Your task to perform on an android device: open the mobile data screen to see how much data has been used Image 0: 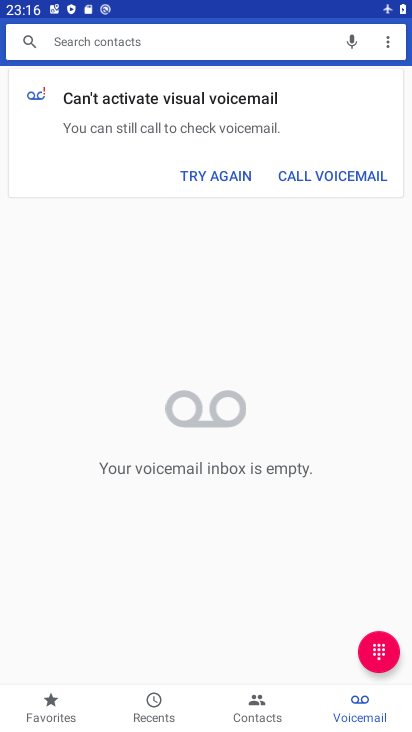
Step 0: press home button
Your task to perform on an android device: open the mobile data screen to see how much data has been used Image 1: 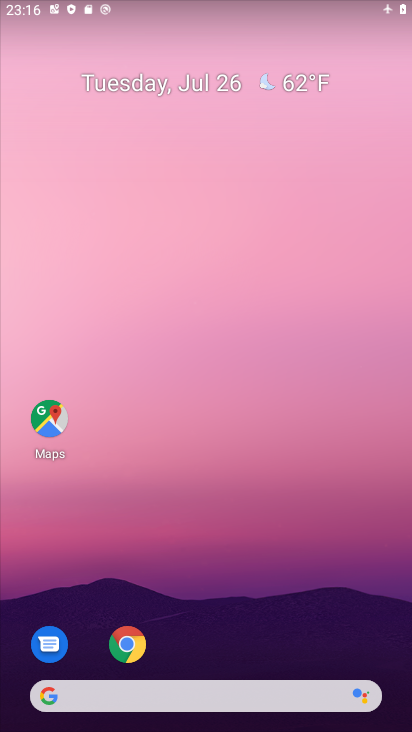
Step 1: drag from (217, 664) to (225, 14)
Your task to perform on an android device: open the mobile data screen to see how much data has been used Image 2: 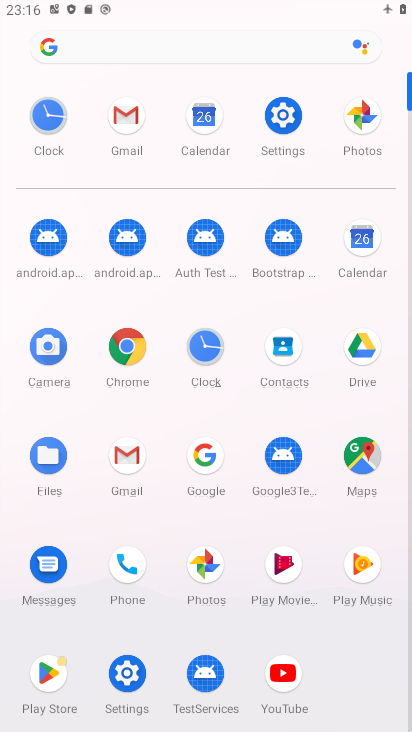
Step 2: click (279, 104)
Your task to perform on an android device: open the mobile data screen to see how much data has been used Image 3: 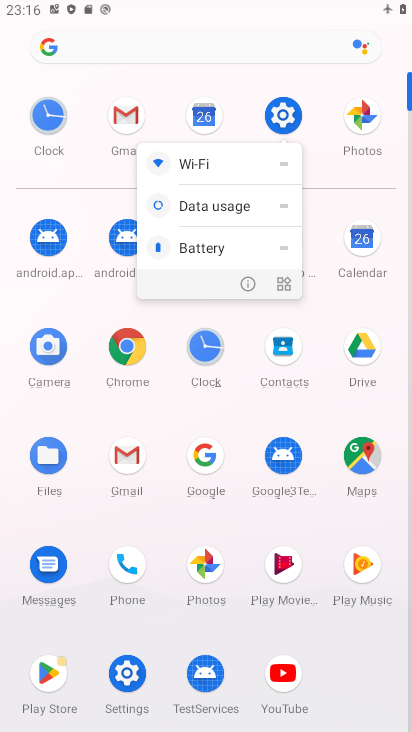
Step 3: click (291, 133)
Your task to perform on an android device: open the mobile data screen to see how much data has been used Image 4: 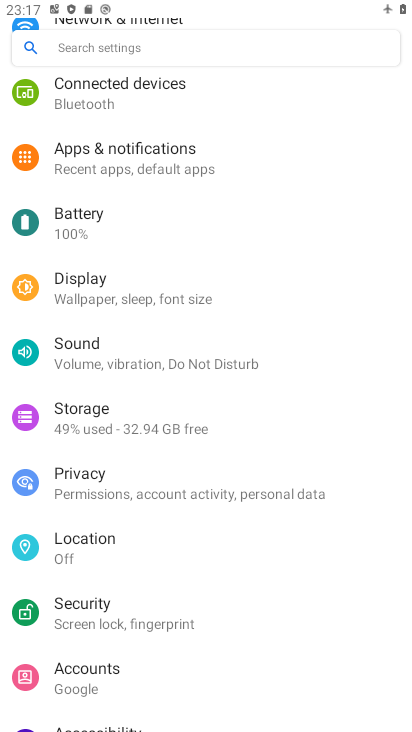
Step 4: drag from (286, 138) to (300, 504)
Your task to perform on an android device: open the mobile data screen to see how much data has been used Image 5: 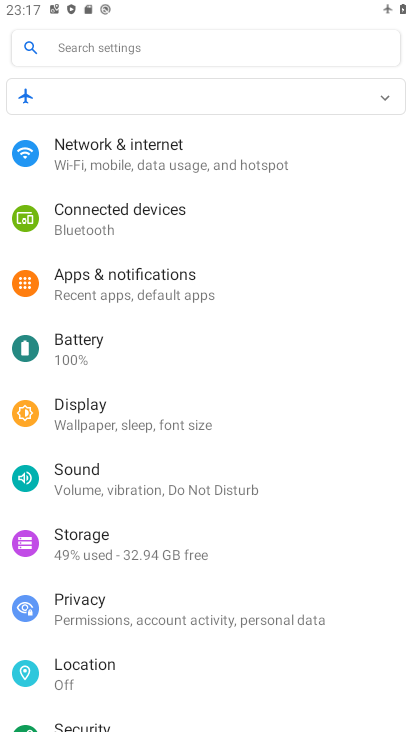
Step 5: click (130, 173)
Your task to perform on an android device: open the mobile data screen to see how much data has been used Image 6: 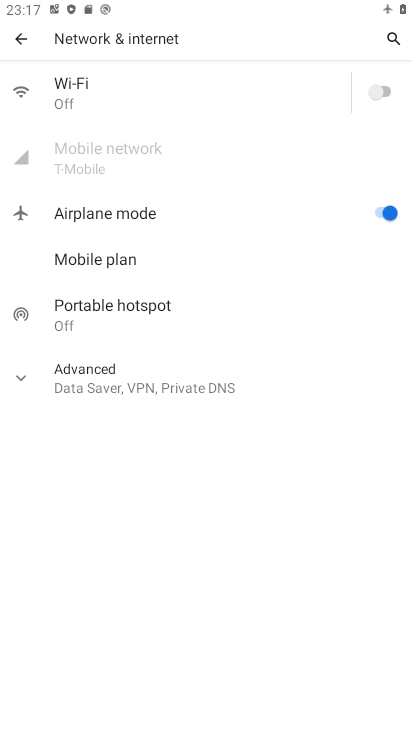
Step 6: task complete